Your task to perform on an android device: Open calendar and show me the third week of next month Image 0: 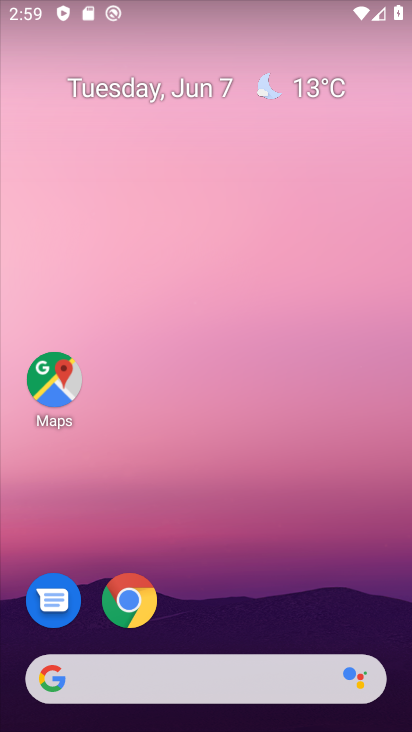
Step 0: drag from (251, 625) to (306, 26)
Your task to perform on an android device: Open calendar and show me the third week of next month Image 1: 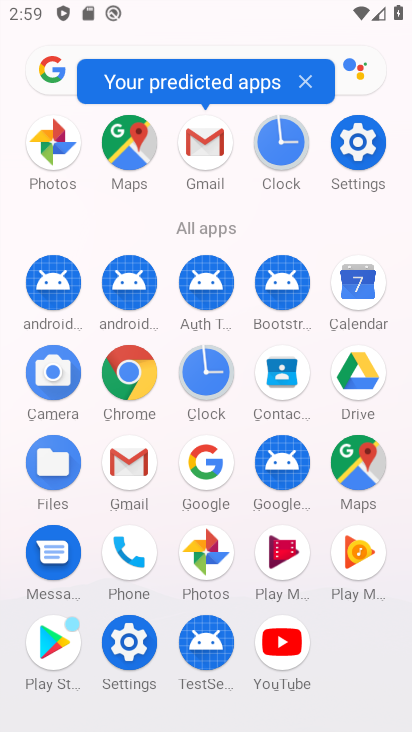
Step 1: click (353, 281)
Your task to perform on an android device: Open calendar and show me the third week of next month Image 2: 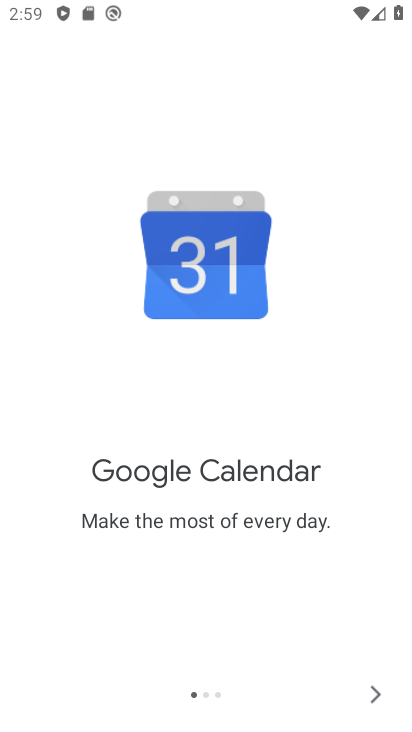
Step 2: click (377, 688)
Your task to perform on an android device: Open calendar and show me the third week of next month Image 3: 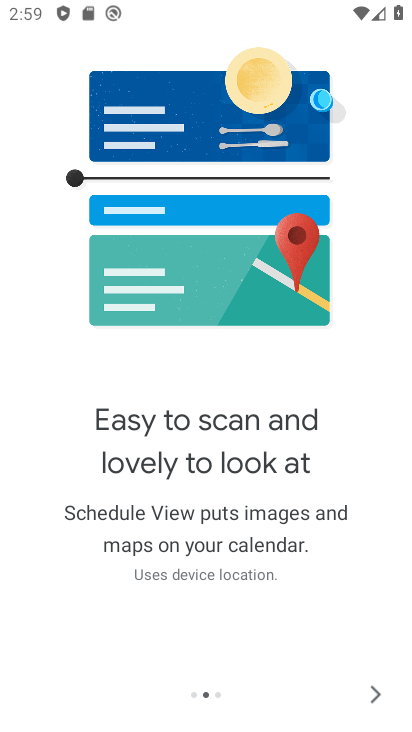
Step 3: click (377, 686)
Your task to perform on an android device: Open calendar and show me the third week of next month Image 4: 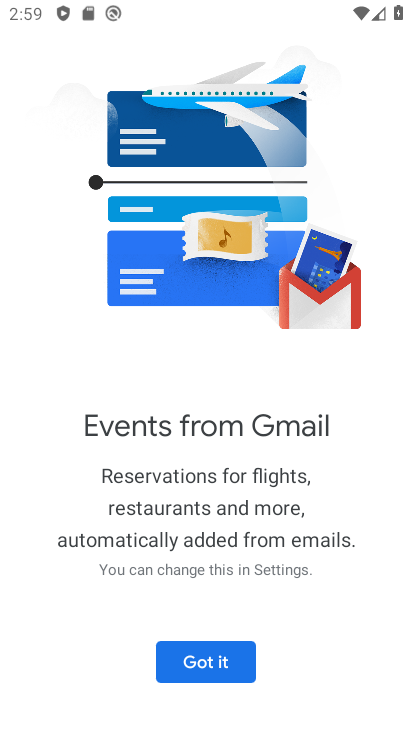
Step 4: click (377, 686)
Your task to perform on an android device: Open calendar and show me the third week of next month Image 5: 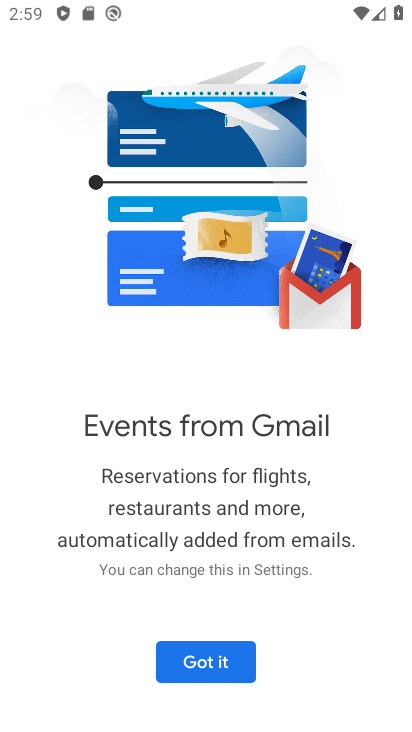
Step 5: click (183, 659)
Your task to perform on an android device: Open calendar and show me the third week of next month Image 6: 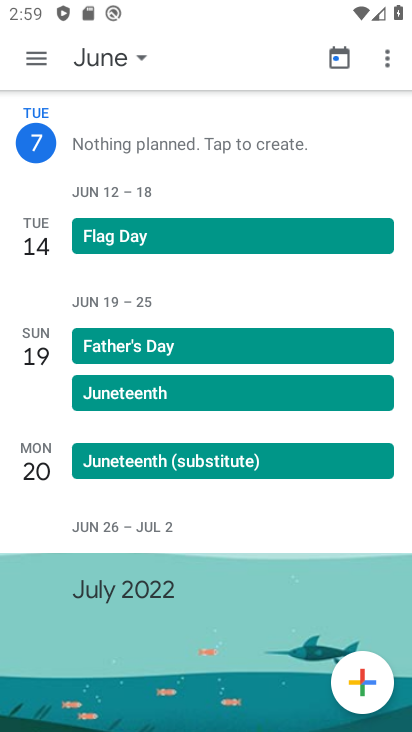
Step 6: click (136, 56)
Your task to perform on an android device: Open calendar and show me the third week of next month Image 7: 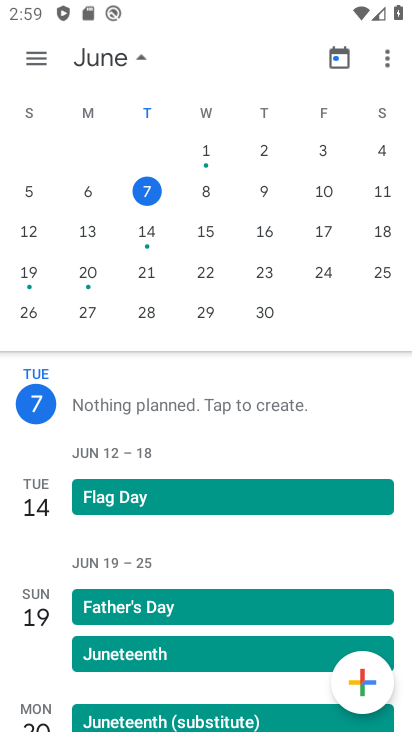
Step 7: drag from (392, 325) to (56, 298)
Your task to perform on an android device: Open calendar and show me the third week of next month Image 8: 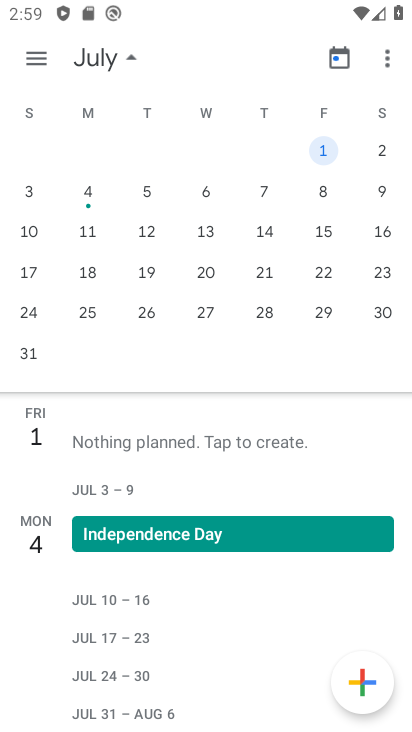
Step 8: click (207, 274)
Your task to perform on an android device: Open calendar and show me the third week of next month Image 9: 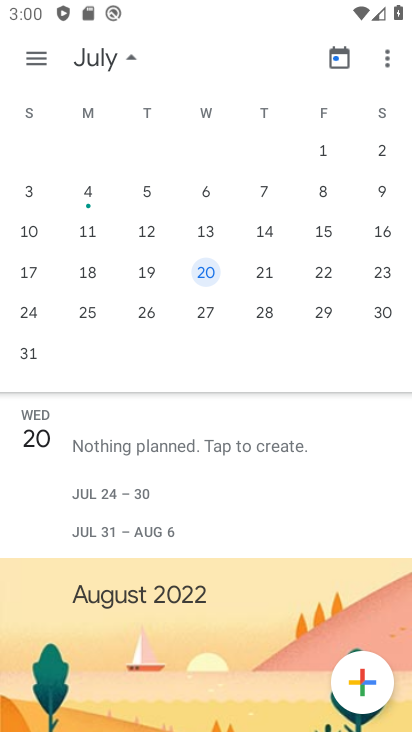
Step 9: task complete